Your task to perform on an android device: Open the calendar and show me this week's events? Image 0: 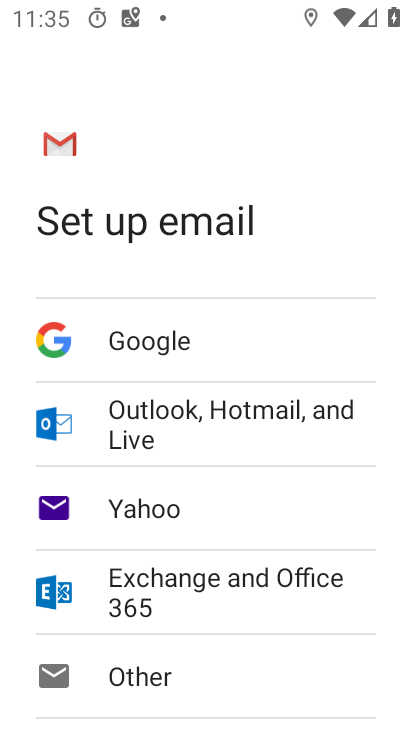
Step 0: press home button
Your task to perform on an android device: Open the calendar and show me this week's events? Image 1: 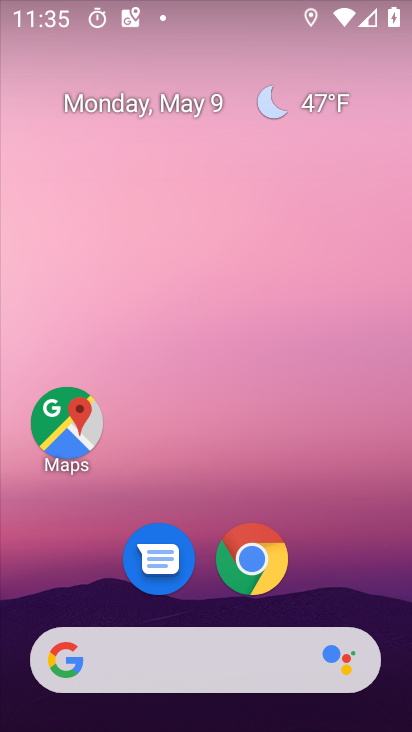
Step 1: drag from (361, 568) to (316, 119)
Your task to perform on an android device: Open the calendar and show me this week's events? Image 2: 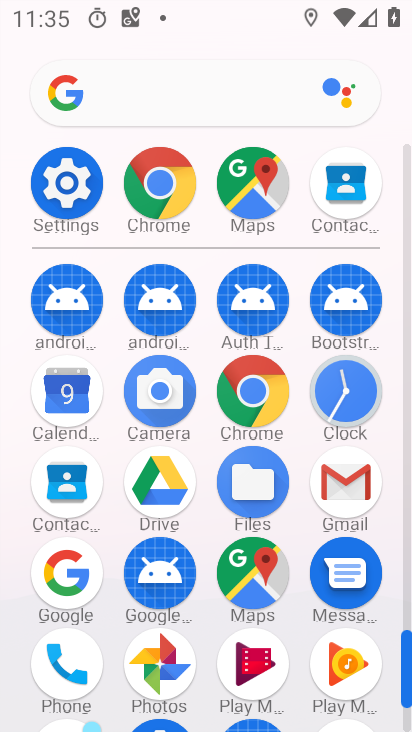
Step 2: click (88, 377)
Your task to perform on an android device: Open the calendar and show me this week's events? Image 3: 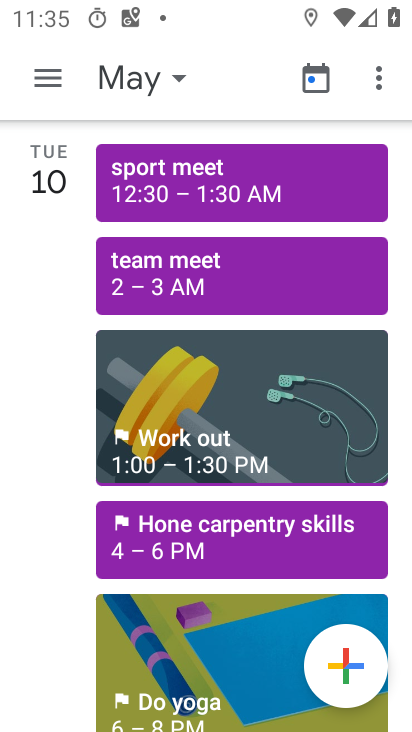
Step 3: task complete